Your task to perform on an android device: Do I have any events today? Image 0: 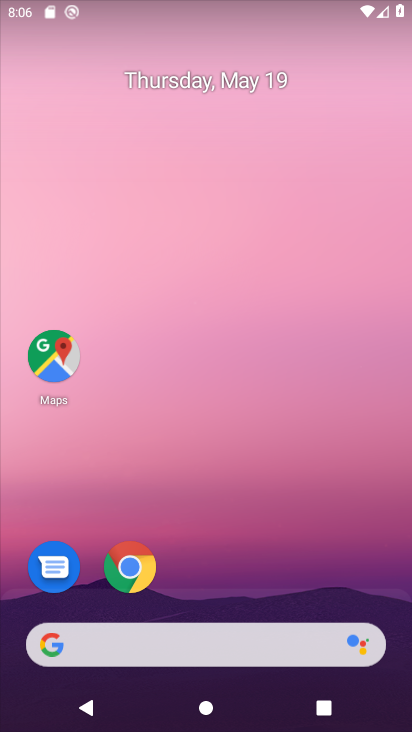
Step 0: click (232, 525)
Your task to perform on an android device: Do I have any events today? Image 1: 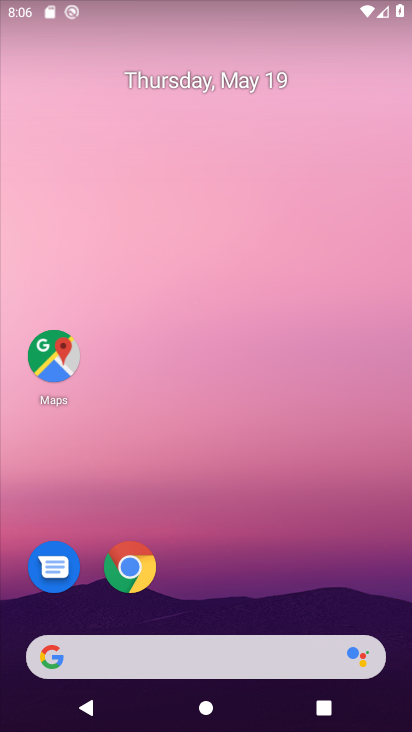
Step 1: drag from (216, 587) to (276, 4)
Your task to perform on an android device: Do I have any events today? Image 2: 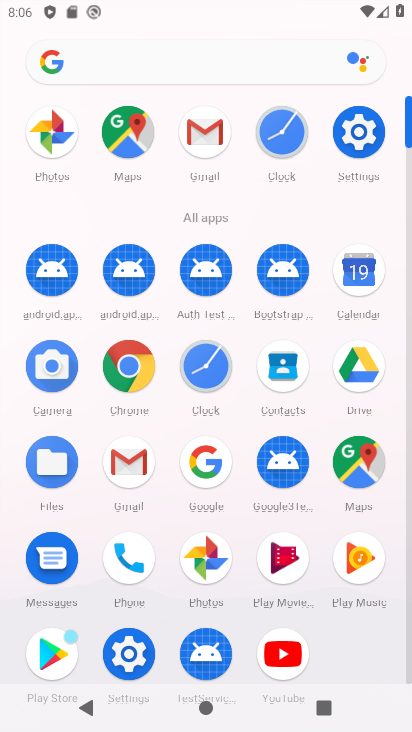
Step 2: click (354, 281)
Your task to perform on an android device: Do I have any events today? Image 3: 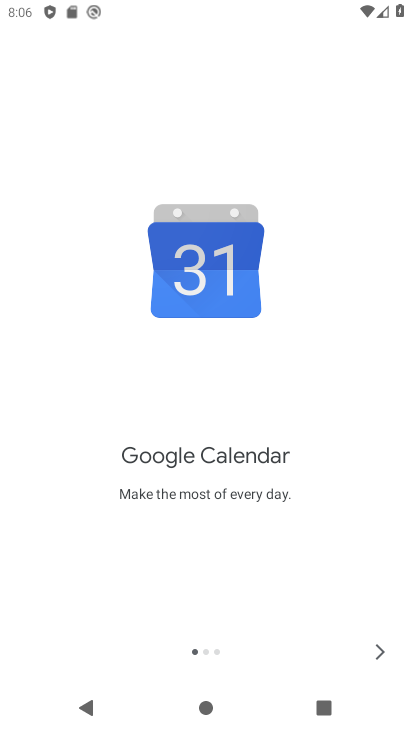
Step 3: click (379, 653)
Your task to perform on an android device: Do I have any events today? Image 4: 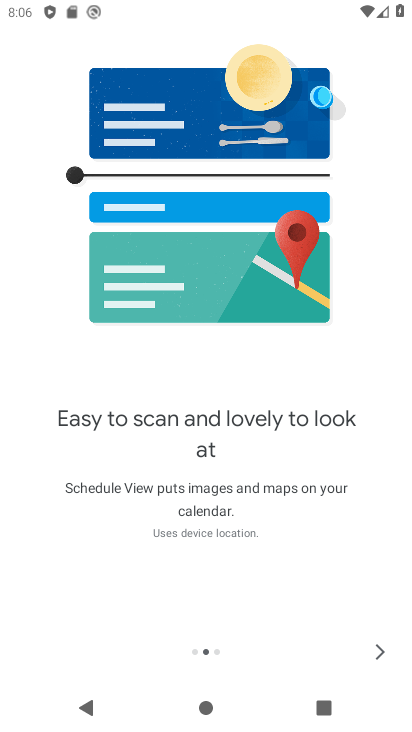
Step 4: click (381, 637)
Your task to perform on an android device: Do I have any events today? Image 5: 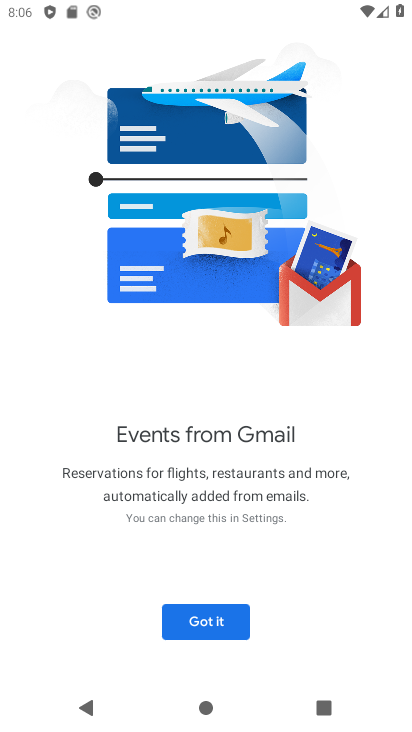
Step 5: click (193, 617)
Your task to perform on an android device: Do I have any events today? Image 6: 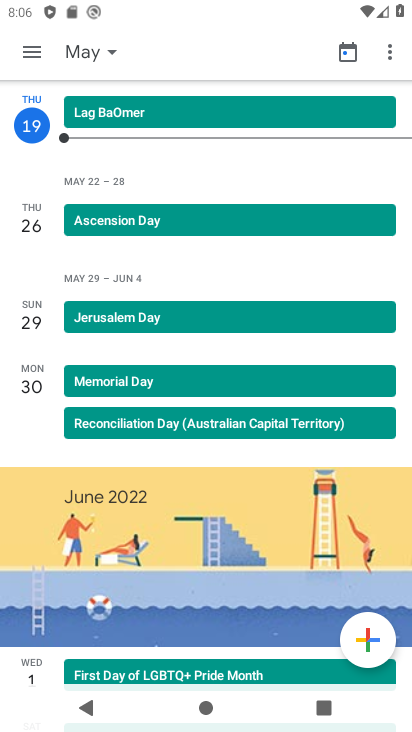
Step 6: click (19, 54)
Your task to perform on an android device: Do I have any events today? Image 7: 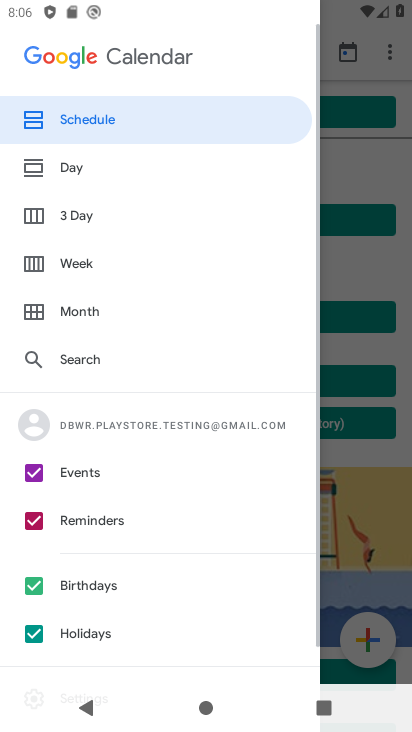
Step 7: click (79, 526)
Your task to perform on an android device: Do I have any events today? Image 8: 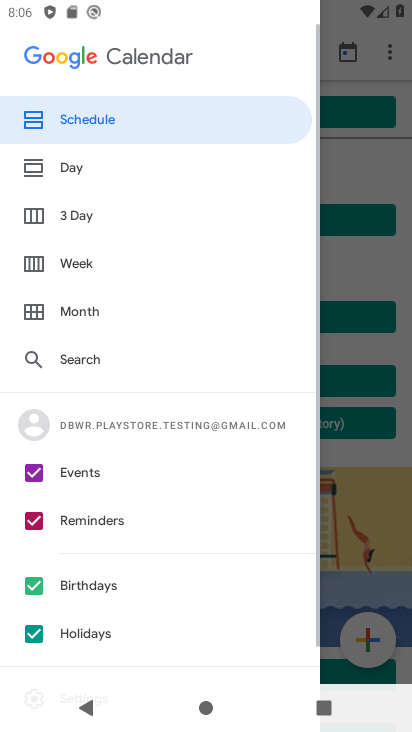
Step 8: click (69, 590)
Your task to perform on an android device: Do I have any events today? Image 9: 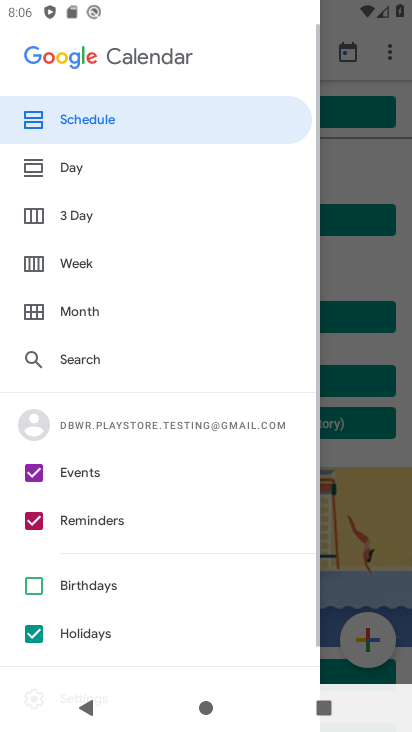
Step 9: click (62, 634)
Your task to perform on an android device: Do I have any events today? Image 10: 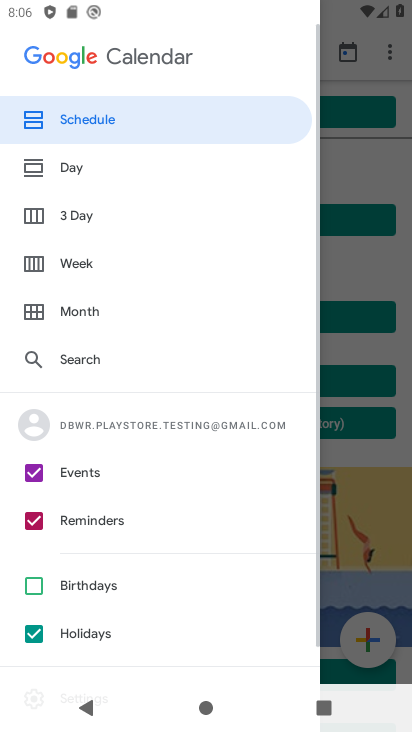
Step 10: click (80, 517)
Your task to perform on an android device: Do I have any events today? Image 11: 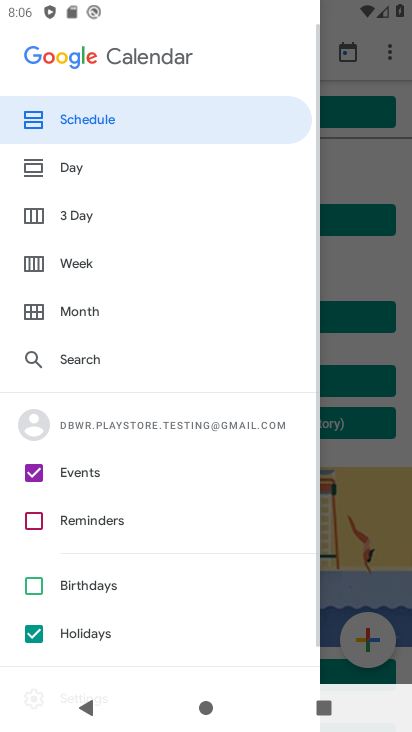
Step 11: click (58, 638)
Your task to perform on an android device: Do I have any events today? Image 12: 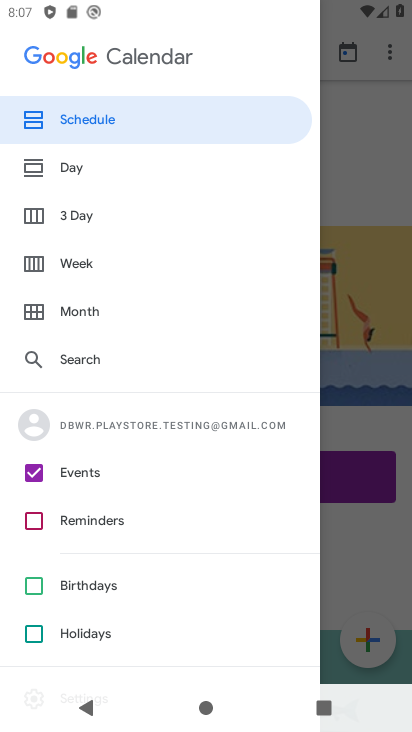
Step 12: click (87, 181)
Your task to perform on an android device: Do I have any events today? Image 13: 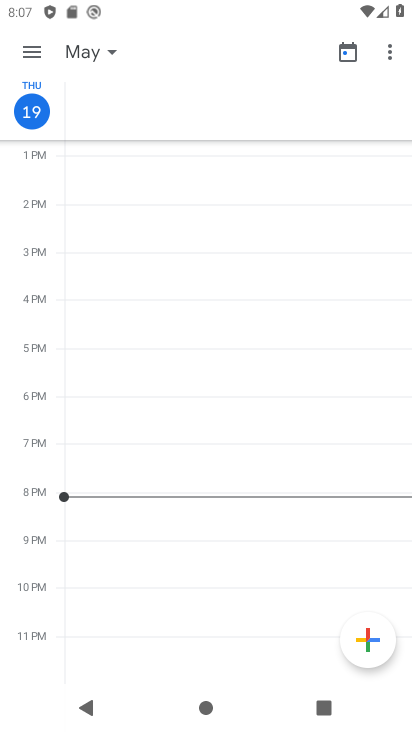
Step 13: task complete